Your task to perform on an android device: change the clock display to analog Image 0: 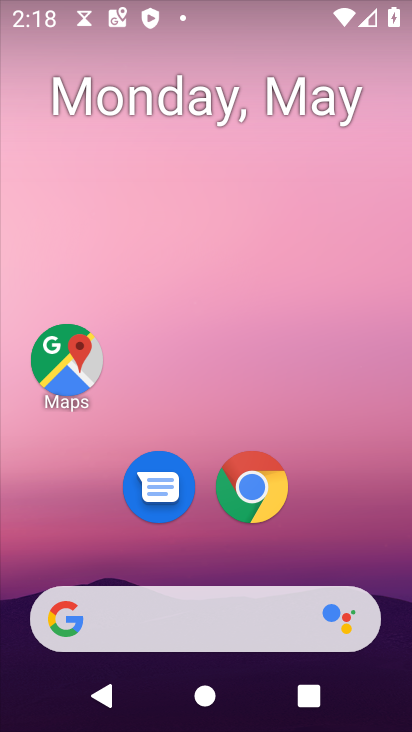
Step 0: drag from (370, 528) to (300, 102)
Your task to perform on an android device: change the clock display to analog Image 1: 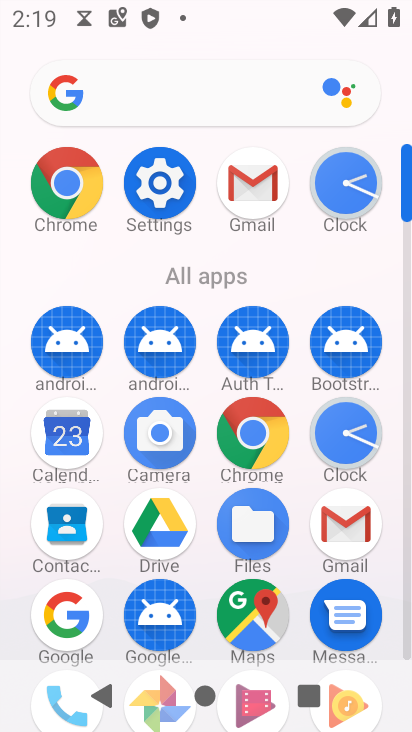
Step 1: click (345, 191)
Your task to perform on an android device: change the clock display to analog Image 2: 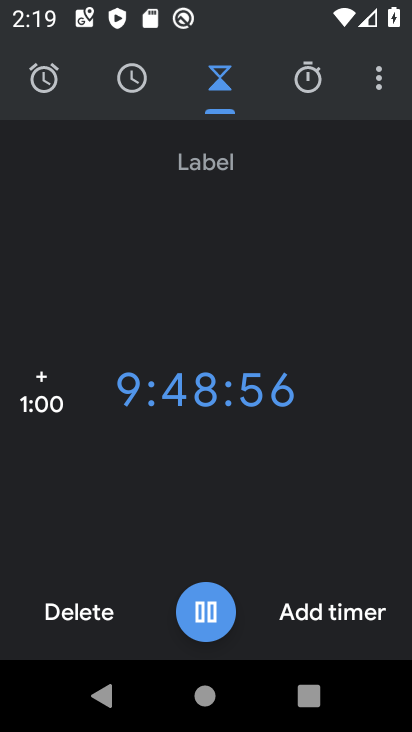
Step 2: click (379, 96)
Your task to perform on an android device: change the clock display to analog Image 3: 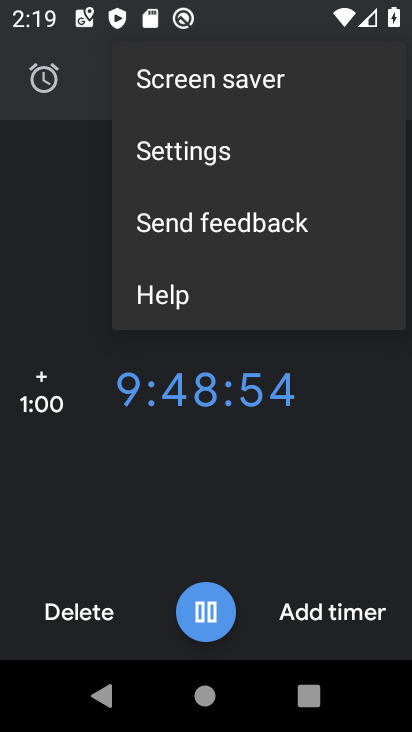
Step 3: click (295, 154)
Your task to perform on an android device: change the clock display to analog Image 4: 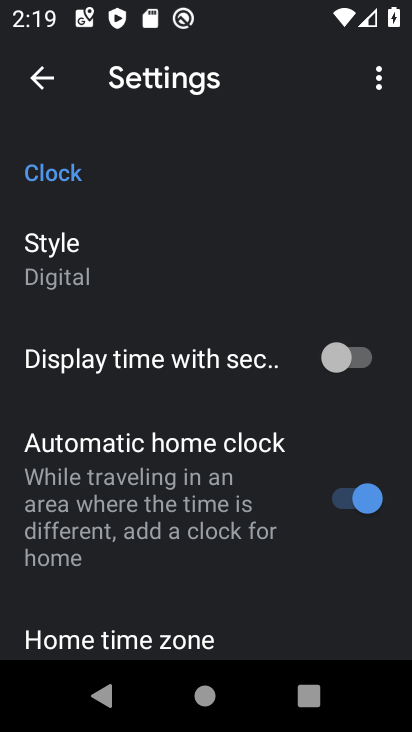
Step 4: click (195, 272)
Your task to perform on an android device: change the clock display to analog Image 5: 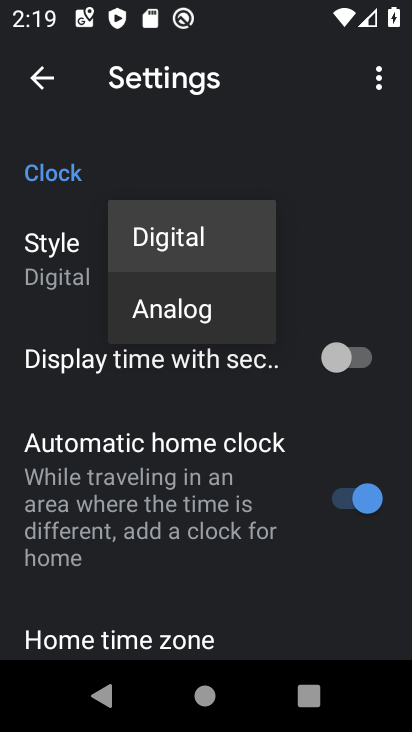
Step 5: click (208, 307)
Your task to perform on an android device: change the clock display to analog Image 6: 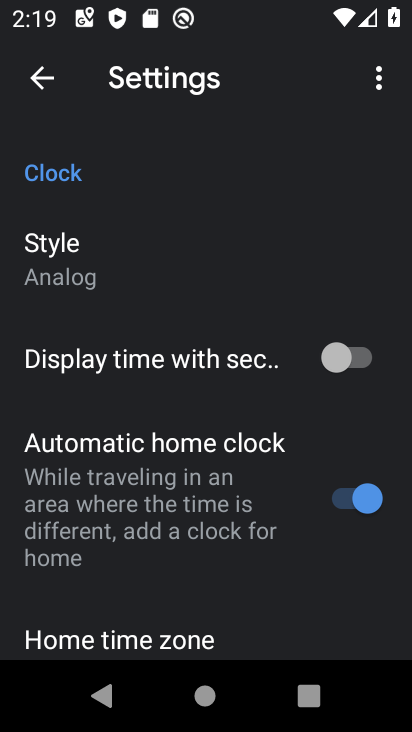
Step 6: task complete